Your task to perform on an android device: open device folders in google photos Image 0: 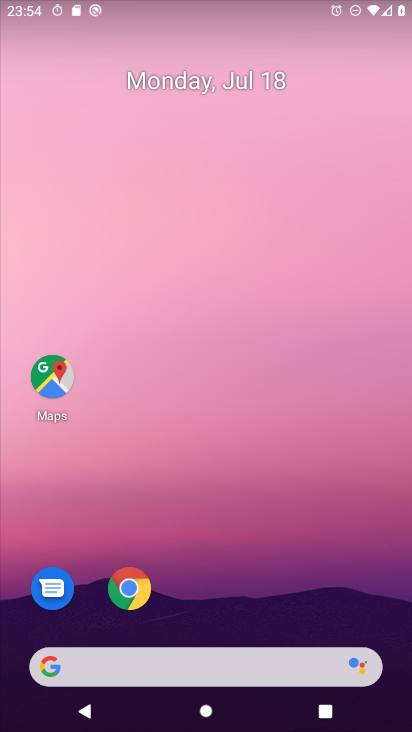
Step 0: press home button
Your task to perform on an android device: open device folders in google photos Image 1: 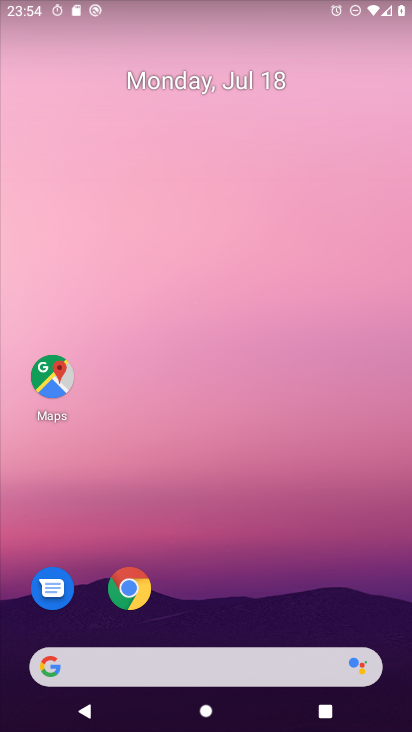
Step 1: drag from (128, 664) to (248, 167)
Your task to perform on an android device: open device folders in google photos Image 2: 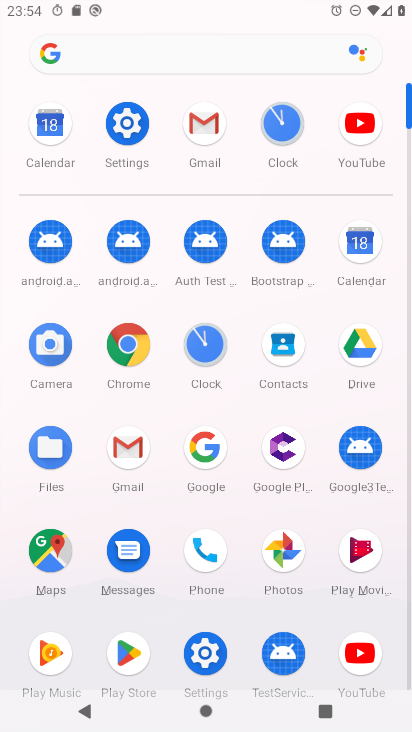
Step 2: click (275, 548)
Your task to perform on an android device: open device folders in google photos Image 3: 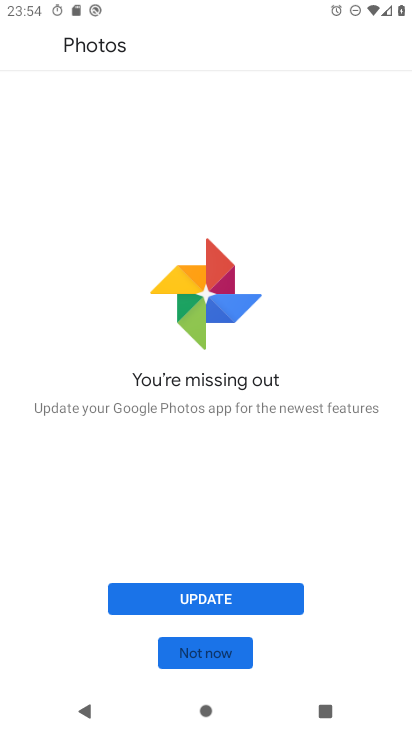
Step 3: click (205, 653)
Your task to perform on an android device: open device folders in google photos Image 4: 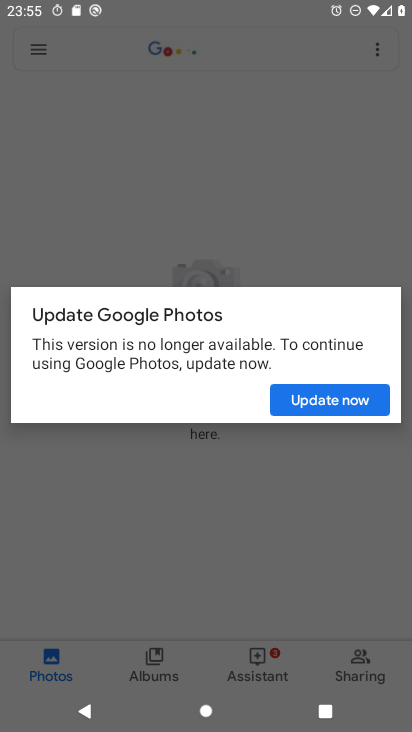
Step 4: click (301, 401)
Your task to perform on an android device: open device folders in google photos Image 5: 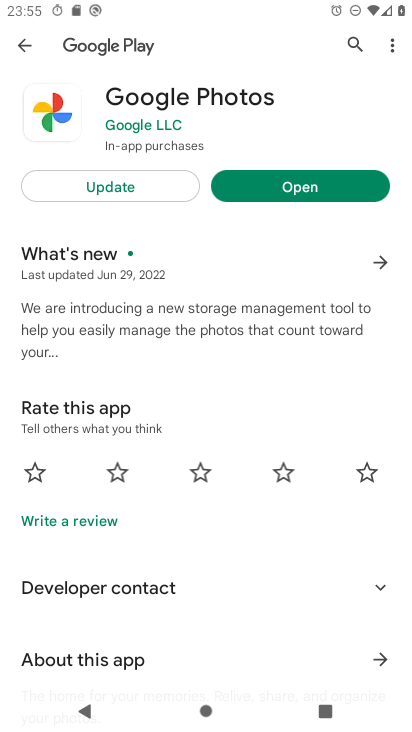
Step 5: click (300, 192)
Your task to perform on an android device: open device folders in google photos Image 6: 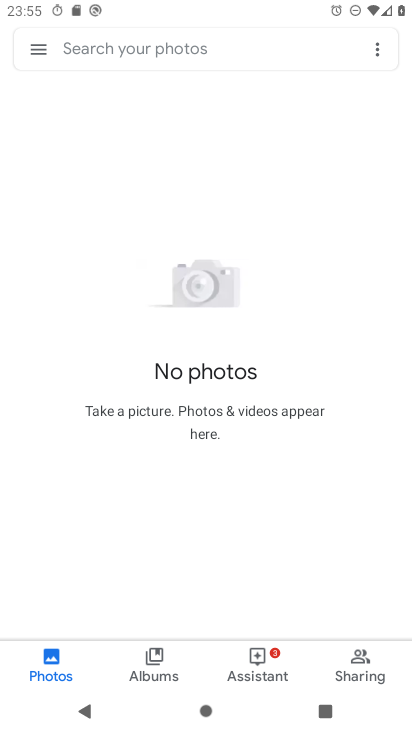
Step 6: click (42, 51)
Your task to perform on an android device: open device folders in google photos Image 7: 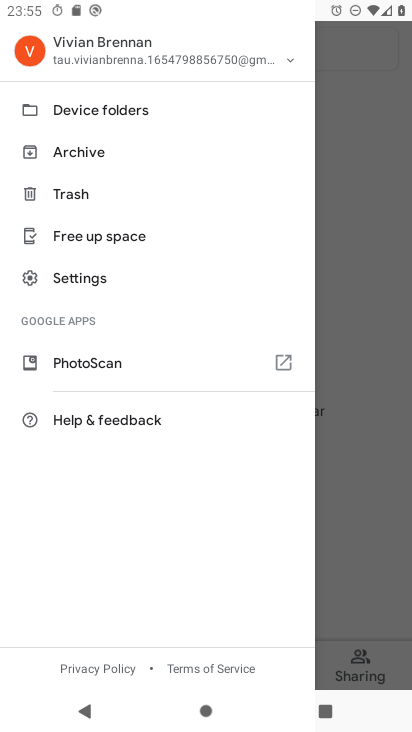
Step 7: click (80, 110)
Your task to perform on an android device: open device folders in google photos Image 8: 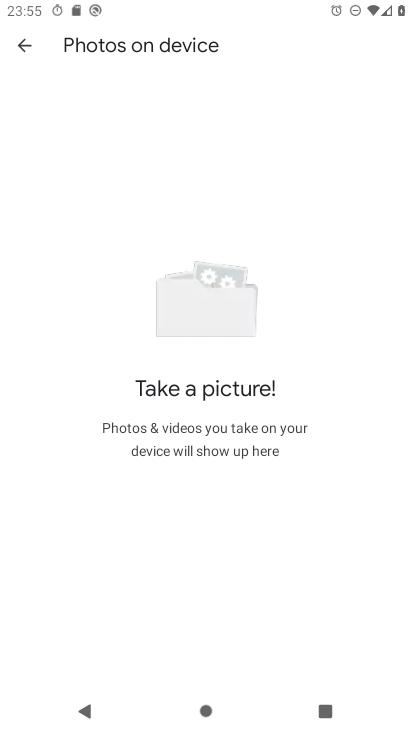
Step 8: task complete